Your task to perform on an android device: delete the emails in spam in the gmail app Image 0: 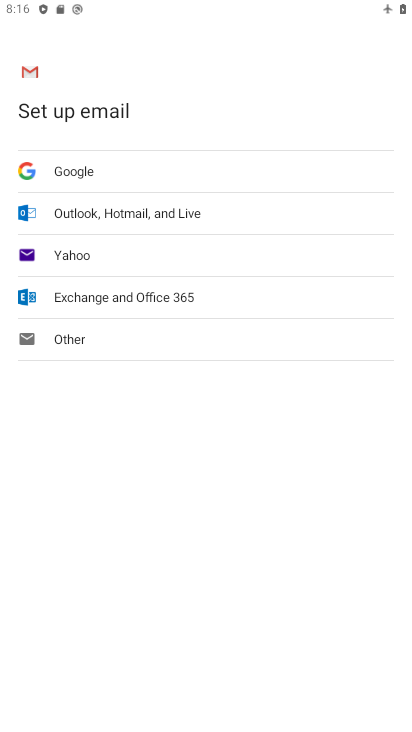
Step 0: press home button
Your task to perform on an android device: delete the emails in spam in the gmail app Image 1: 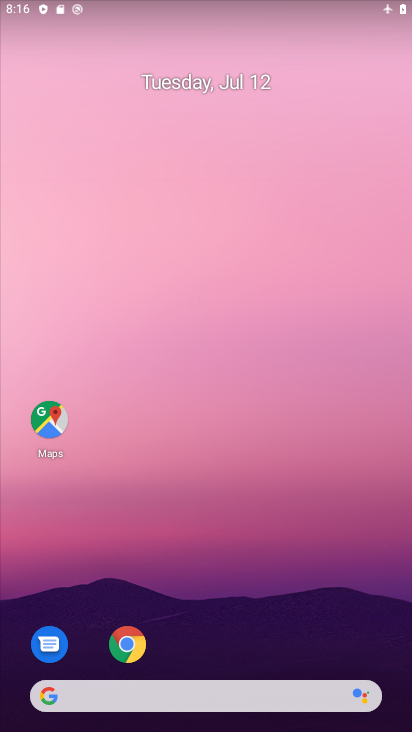
Step 1: drag from (204, 644) to (200, 173)
Your task to perform on an android device: delete the emails in spam in the gmail app Image 2: 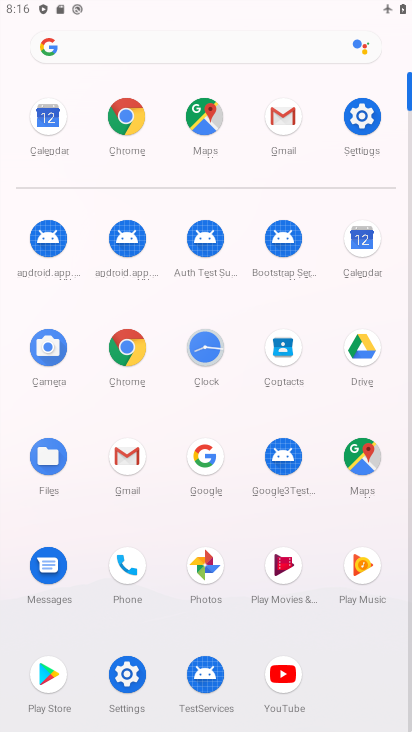
Step 2: click (287, 116)
Your task to perform on an android device: delete the emails in spam in the gmail app Image 3: 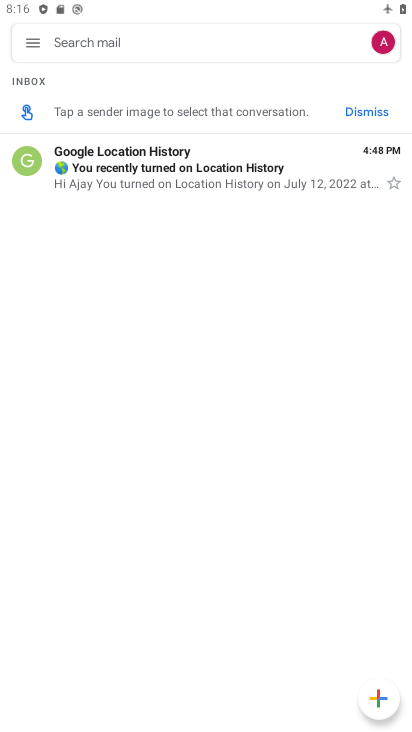
Step 3: click (43, 38)
Your task to perform on an android device: delete the emails in spam in the gmail app Image 4: 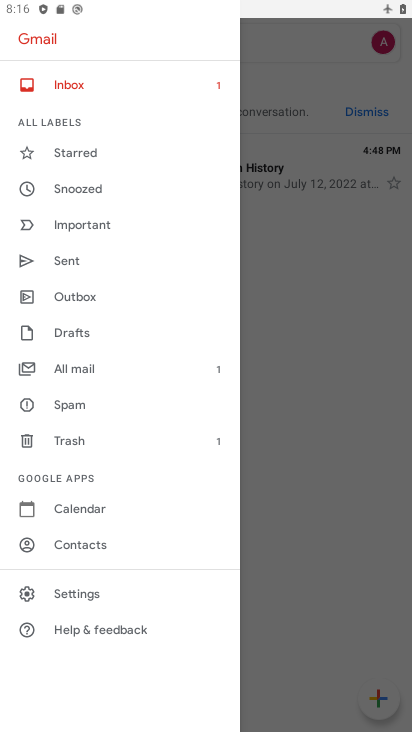
Step 4: click (111, 409)
Your task to perform on an android device: delete the emails in spam in the gmail app Image 5: 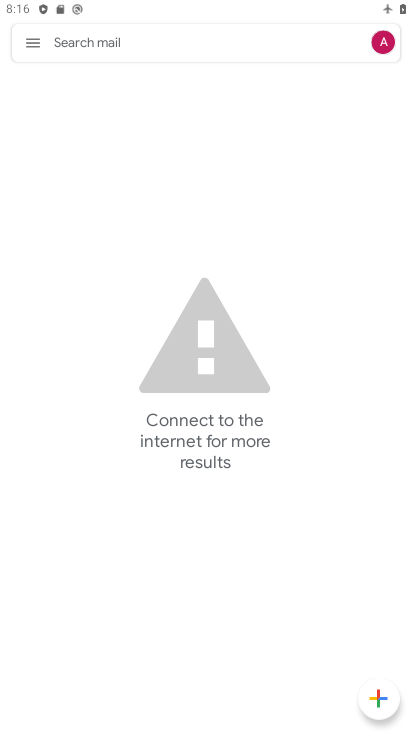
Step 5: task complete